Your task to perform on an android device: Open calendar and show me the second week of next month Image 0: 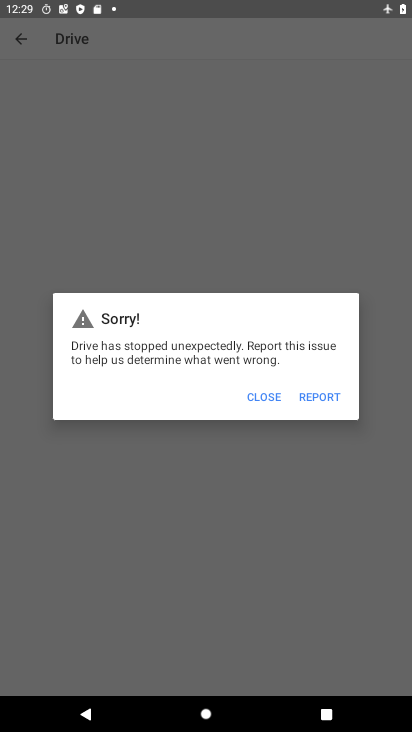
Step 0: click (316, 394)
Your task to perform on an android device: Open calendar and show me the second week of next month Image 1: 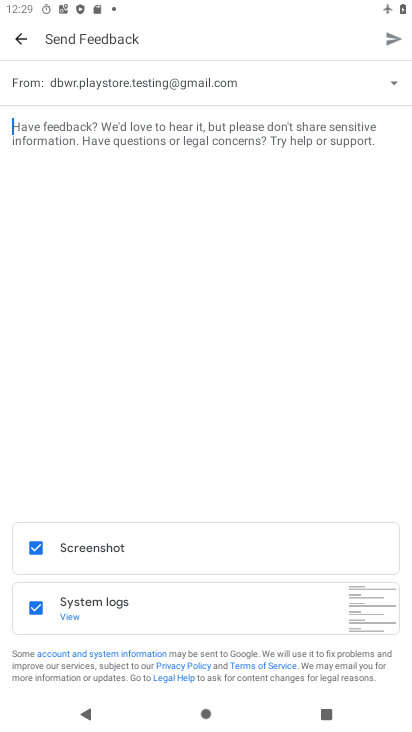
Step 1: click (19, 38)
Your task to perform on an android device: Open calendar and show me the second week of next month Image 2: 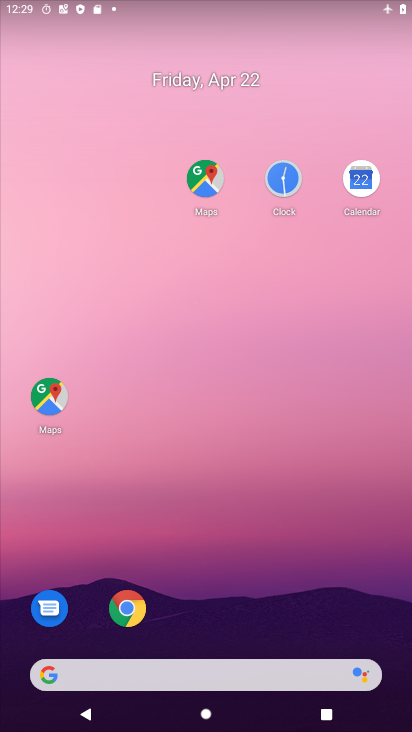
Step 2: drag from (267, 659) to (83, 86)
Your task to perform on an android device: Open calendar and show me the second week of next month Image 3: 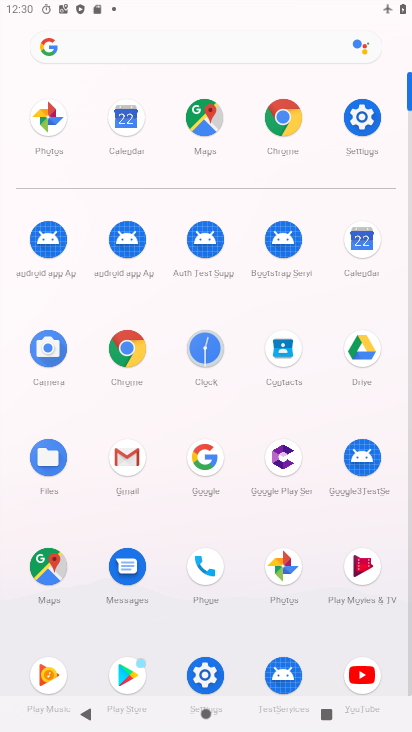
Step 3: click (71, 49)
Your task to perform on an android device: Open calendar and show me the second week of next month Image 4: 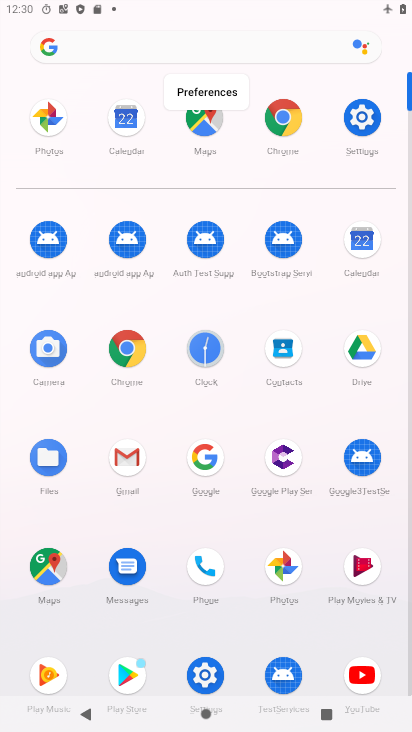
Step 4: click (366, 249)
Your task to perform on an android device: Open calendar and show me the second week of next month Image 5: 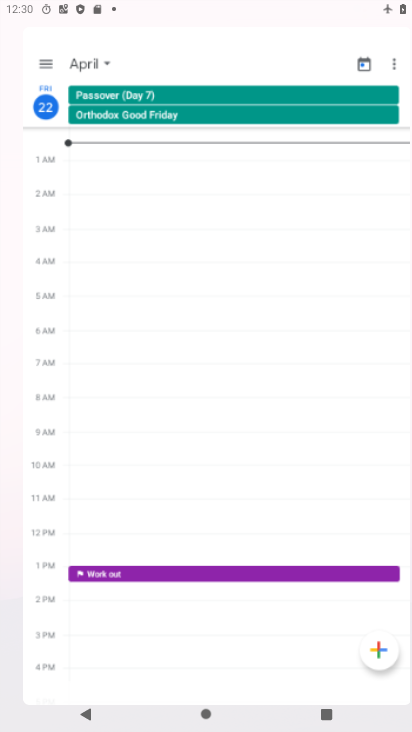
Step 5: click (366, 249)
Your task to perform on an android device: Open calendar and show me the second week of next month Image 6: 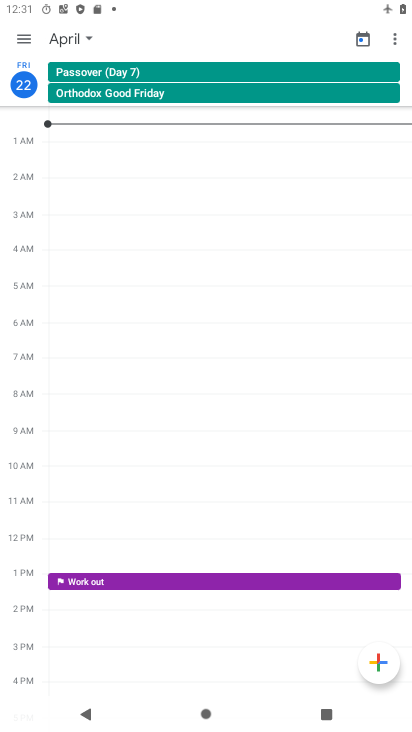
Step 6: drag from (89, 39) to (156, 365)
Your task to perform on an android device: Open calendar and show me the second week of next month Image 7: 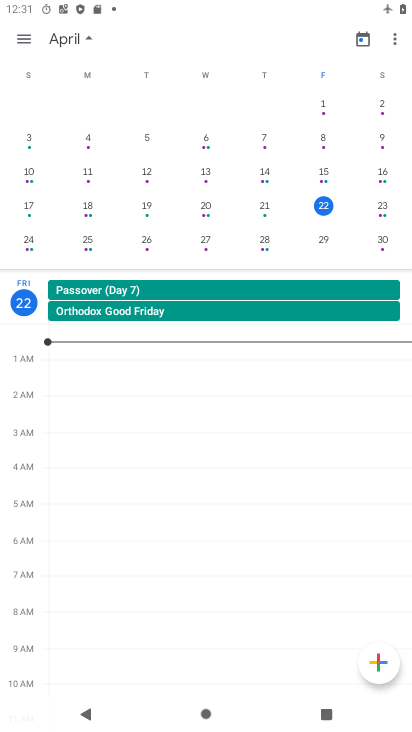
Step 7: click (120, 216)
Your task to perform on an android device: Open calendar and show me the second week of next month Image 8: 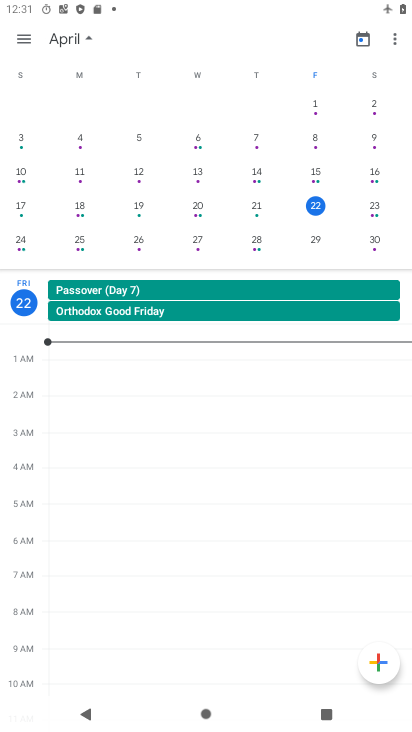
Step 8: drag from (222, 206) to (2, 206)
Your task to perform on an android device: Open calendar and show me the second week of next month Image 9: 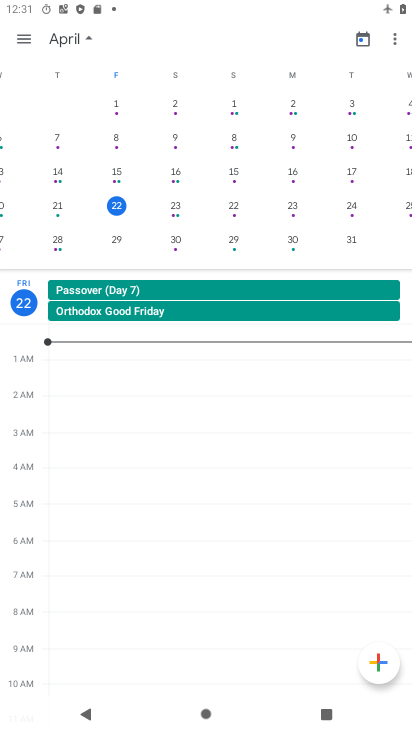
Step 9: drag from (199, 189) to (22, 167)
Your task to perform on an android device: Open calendar and show me the second week of next month Image 10: 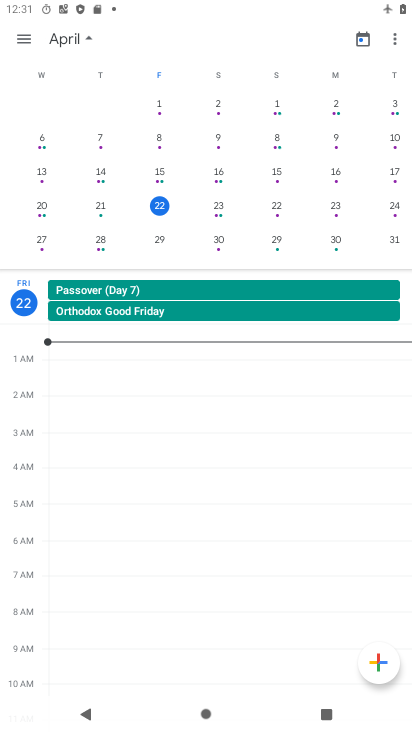
Step 10: drag from (0, 226) to (31, 194)
Your task to perform on an android device: Open calendar and show me the second week of next month Image 11: 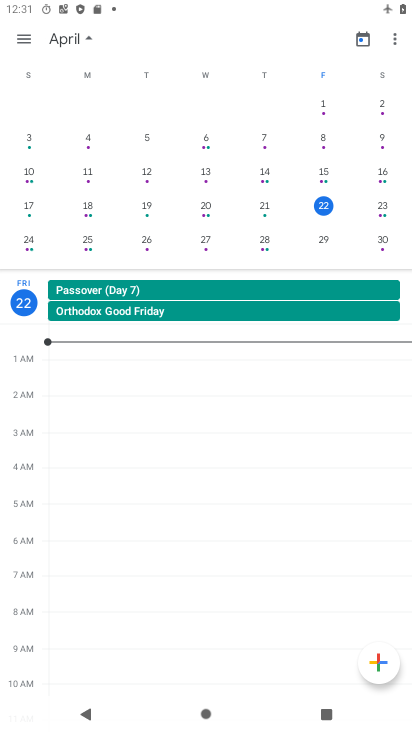
Step 11: drag from (210, 196) to (30, 195)
Your task to perform on an android device: Open calendar and show me the second week of next month Image 12: 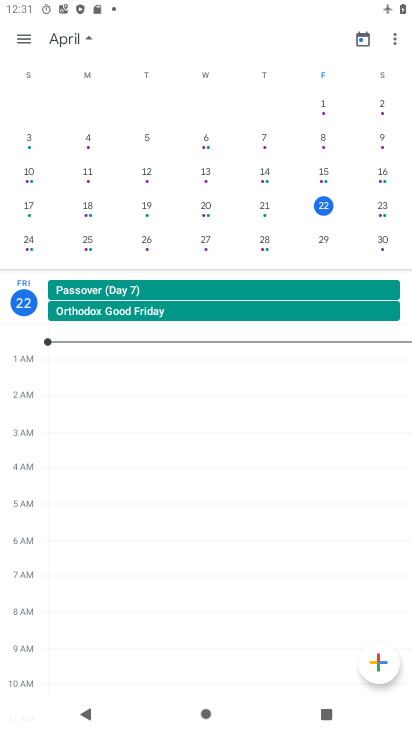
Step 12: drag from (238, 198) to (1, 198)
Your task to perform on an android device: Open calendar and show me the second week of next month Image 13: 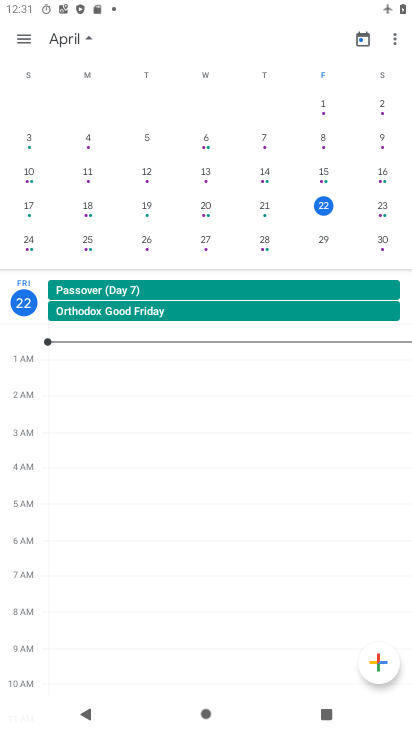
Step 13: drag from (251, 189) to (22, 181)
Your task to perform on an android device: Open calendar and show me the second week of next month Image 14: 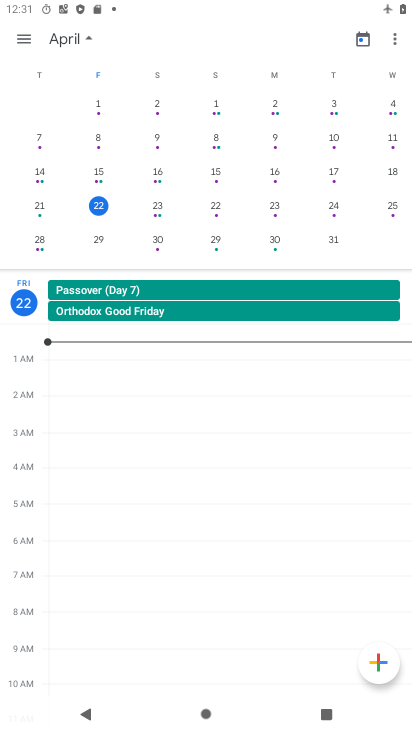
Step 14: drag from (252, 198) to (7, 198)
Your task to perform on an android device: Open calendar and show me the second week of next month Image 15: 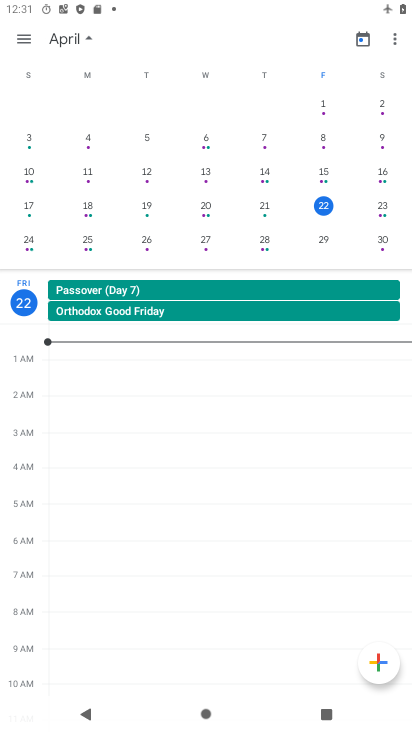
Step 15: click (25, 205)
Your task to perform on an android device: Open calendar and show me the second week of next month Image 16: 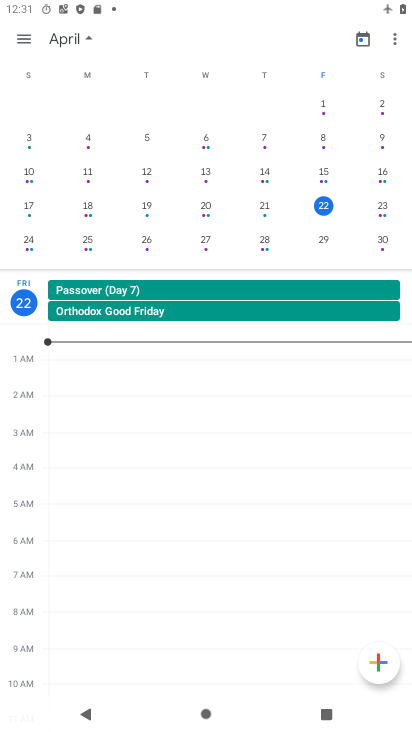
Step 16: drag from (101, 197) to (45, 187)
Your task to perform on an android device: Open calendar and show me the second week of next month Image 17: 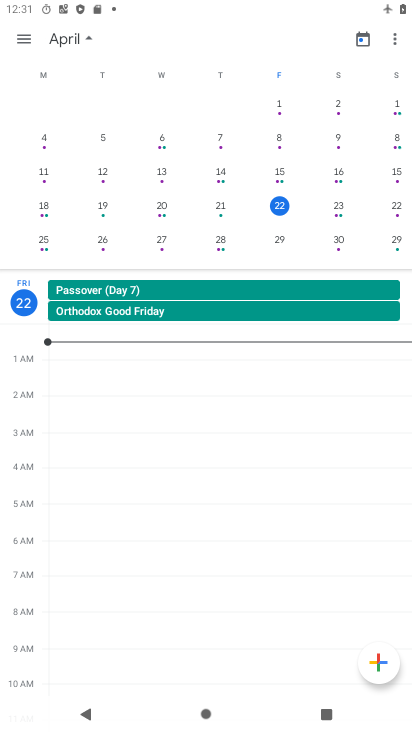
Step 17: drag from (271, 197) to (34, 188)
Your task to perform on an android device: Open calendar and show me the second week of next month Image 18: 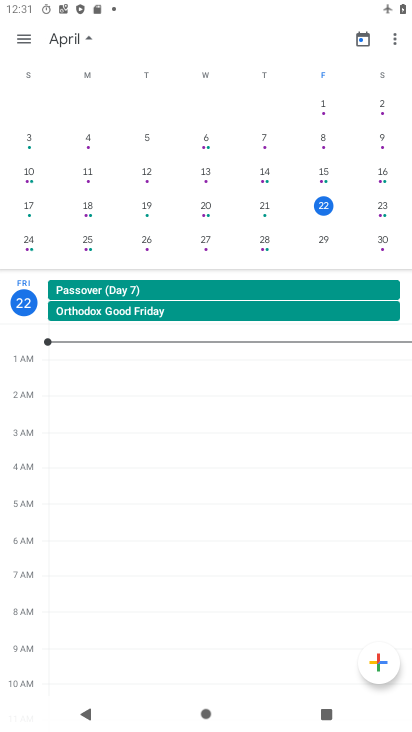
Step 18: drag from (287, 185) to (22, 203)
Your task to perform on an android device: Open calendar and show me the second week of next month Image 19: 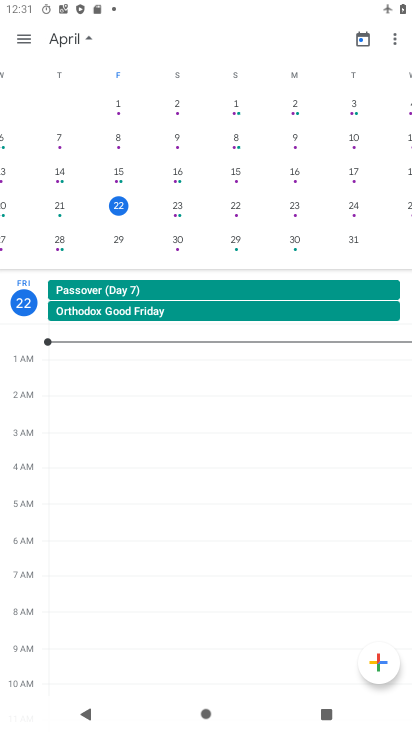
Step 19: click (93, 177)
Your task to perform on an android device: Open calendar and show me the second week of next month Image 20: 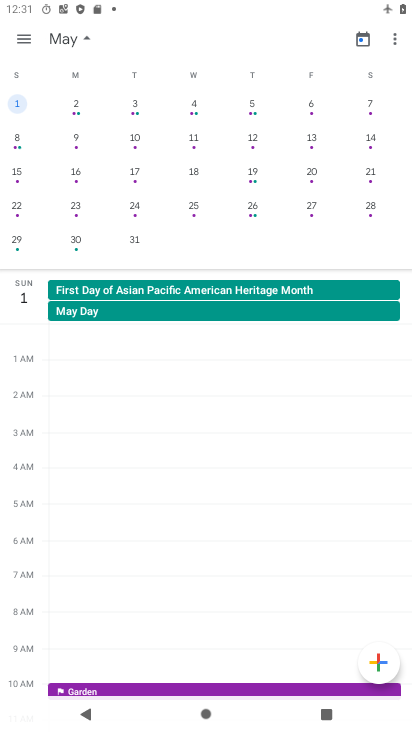
Step 20: drag from (96, 170) to (31, 184)
Your task to perform on an android device: Open calendar and show me the second week of next month Image 21: 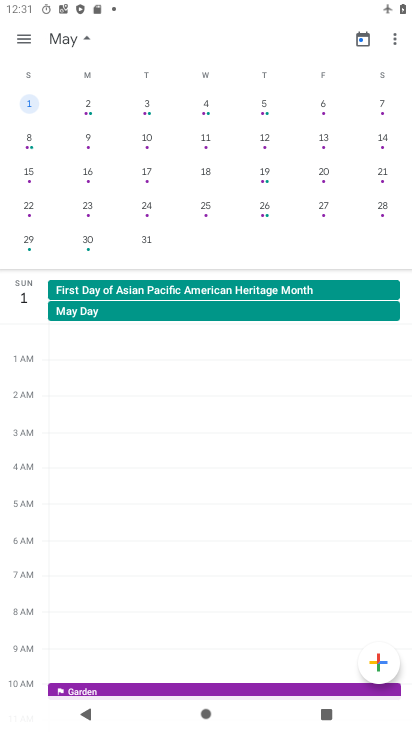
Step 21: click (87, 141)
Your task to perform on an android device: Open calendar and show me the second week of next month Image 22: 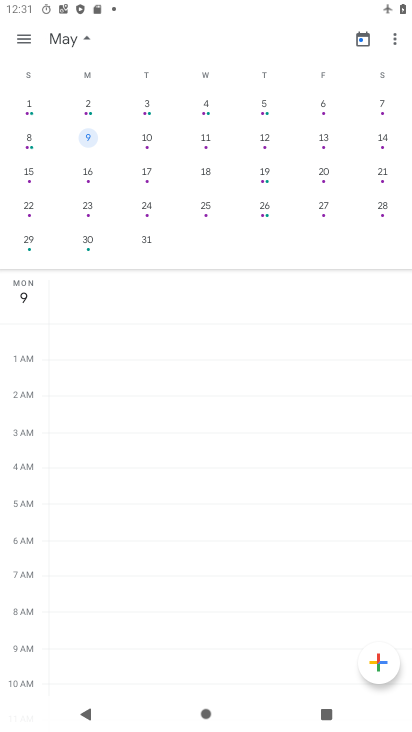
Step 22: task complete